Your task to perform on an android device: Open Youtube and go to the subscriptions tab Image 0: 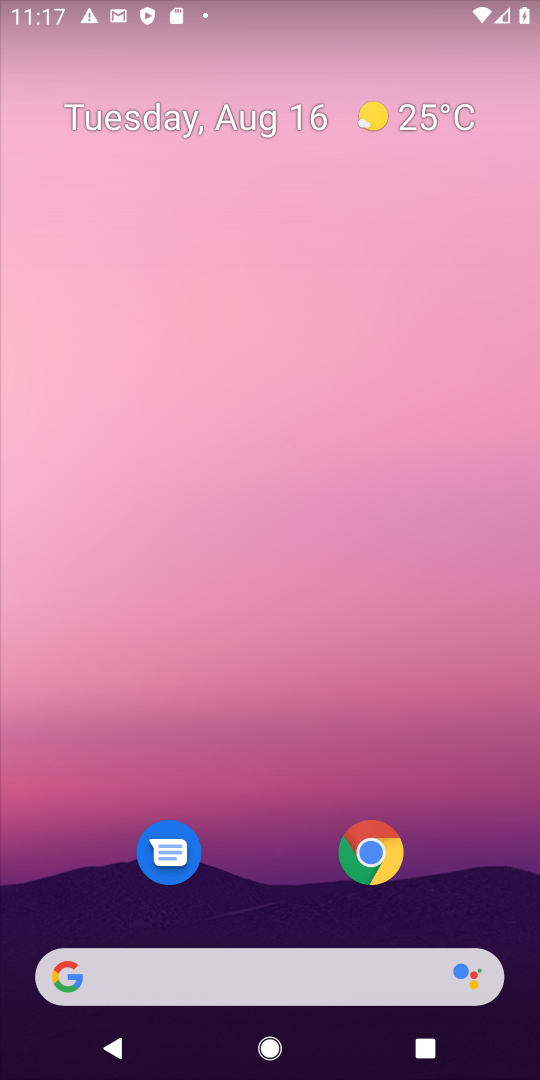
Step 0: drag from (236, 780) to (253, 91)
Your task to perform on an android device: Open Youtube and go to the subscriptions tab Image 1: 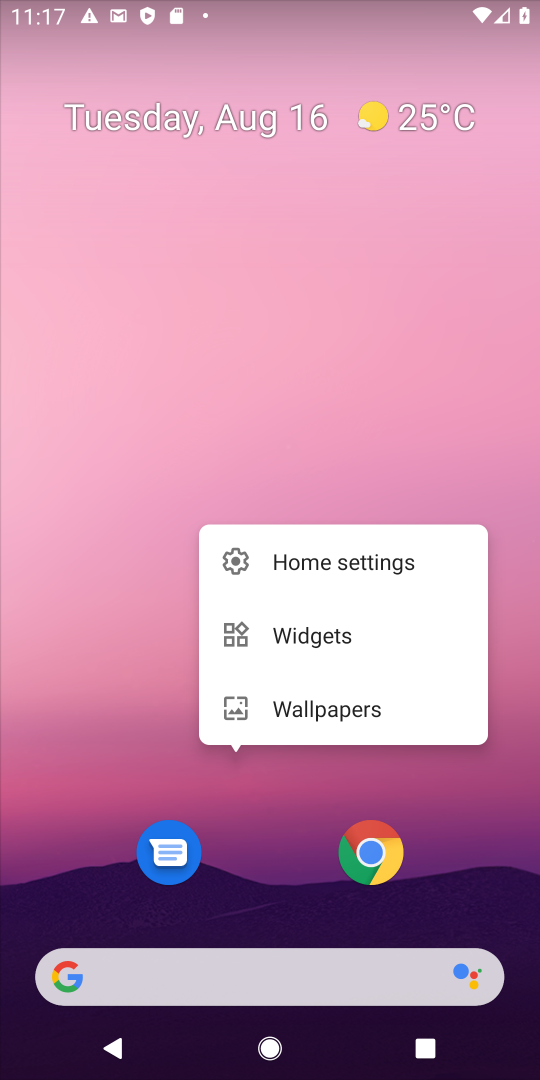
Step 1: click (302, 468)
Your task to perform on an android device: Open Youtube and go to the subscriptions tab Image 2: 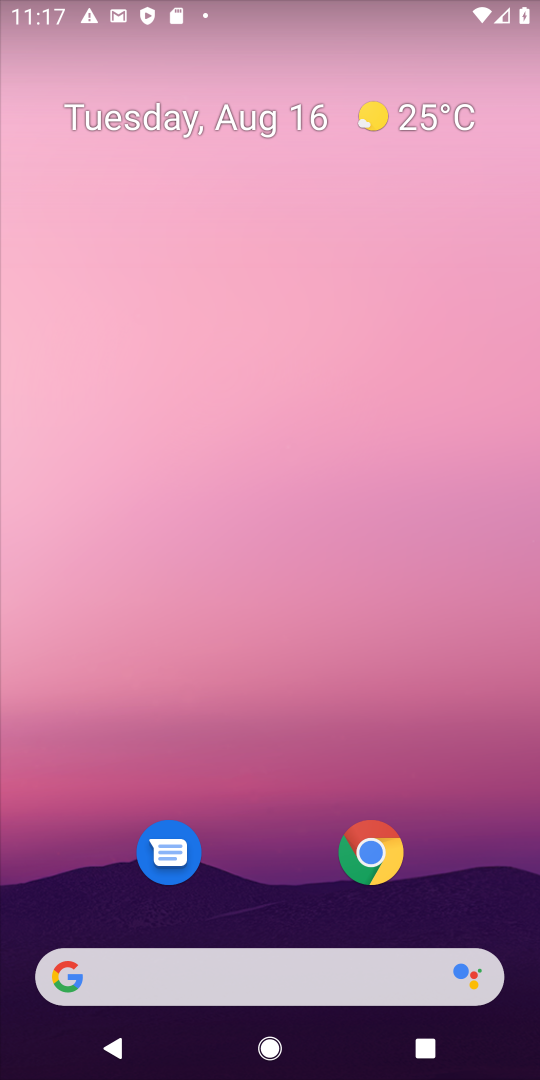
Step 2: drag from (272, 570) to (272, 403)
Your task to perform on an android device: Open Youtube and go to the subscriptions tab Image 3: 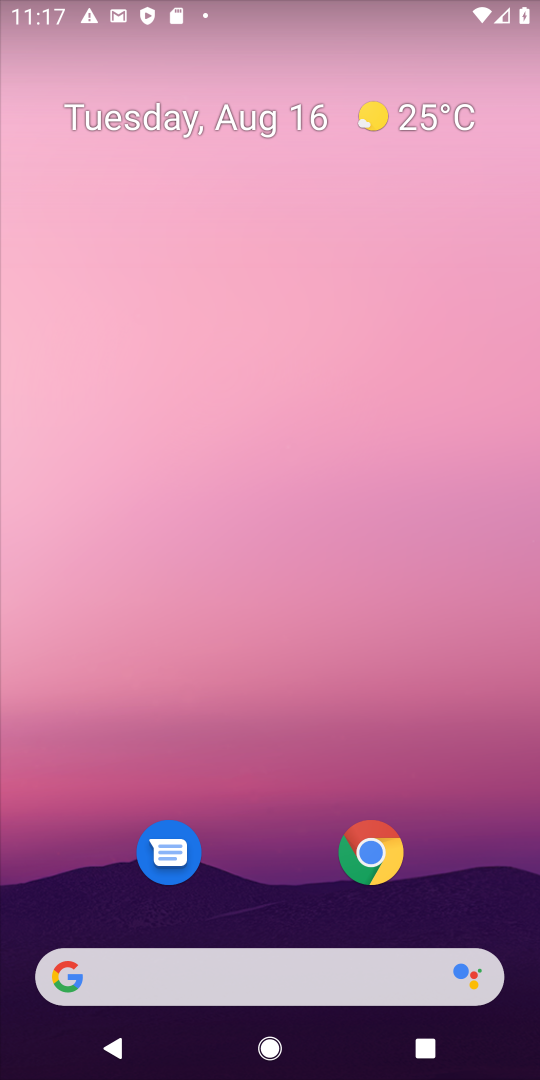
Step 3: drag from (232, 806) to (229, 289)
Your task to perform on an android device: Open Youtube and go to the subscriptions tab Image 4: 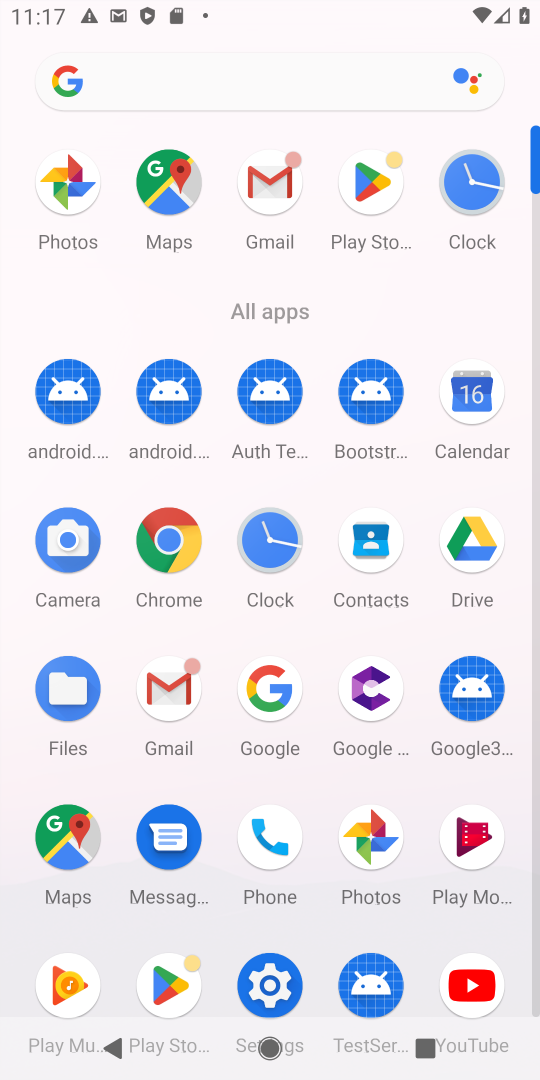
Step 4: click (473, 988)
Your task to perform on an android device: Open Youtube and go to the subscriptions tab Image 5: 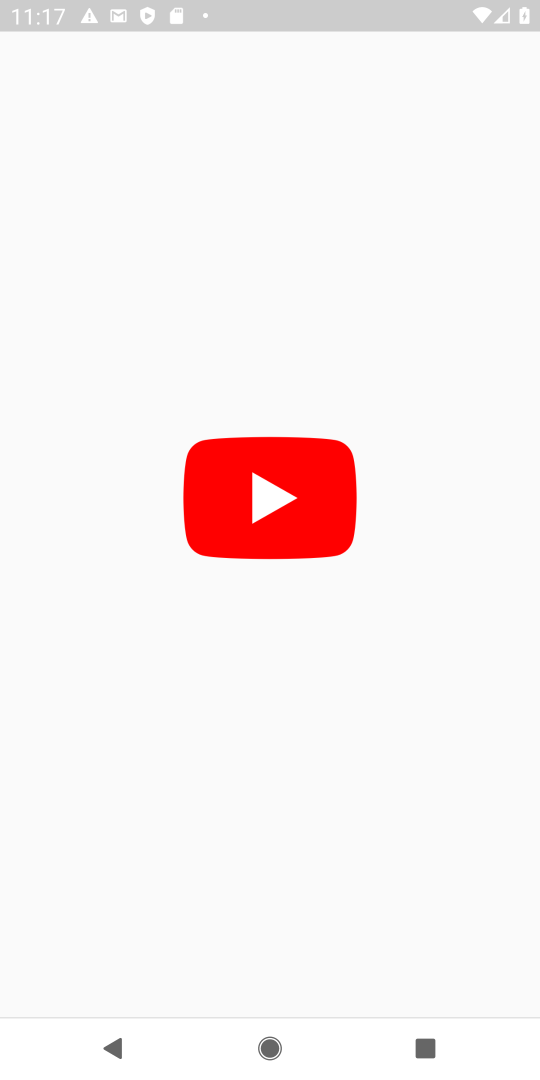
Step 5: task complete